Your task to perform on an android device: Set the phone to "Do not disturb". Image 0: 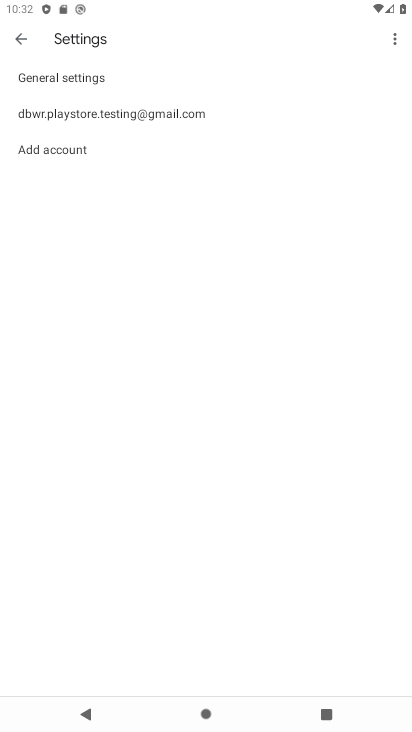
Step 0: press home button
Your task to perform on an android device: Set the phone to "Do not disturb". Image 1: 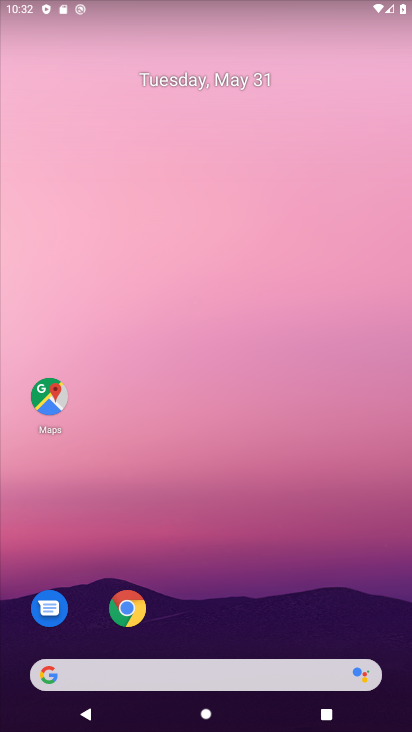
Step 1: drag from (297, 604) to (291, 90)
Your task to perform on an android device: Set the phone to "Do not disturb". Image 2: 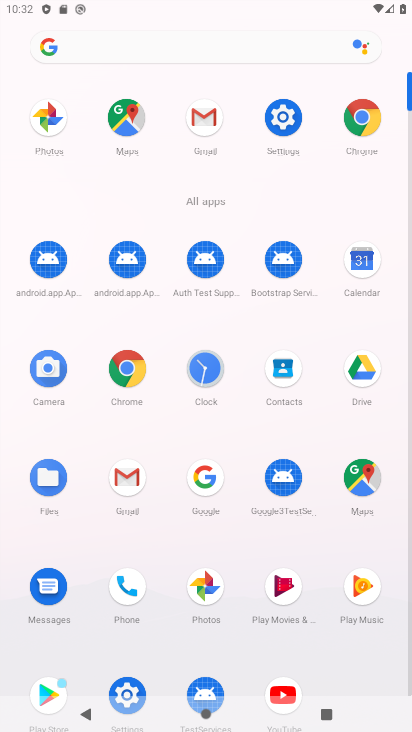
Step 2: click (123, 683)
Your task to perform on an android device: Set the phone to "Do not disturb". Image 3: 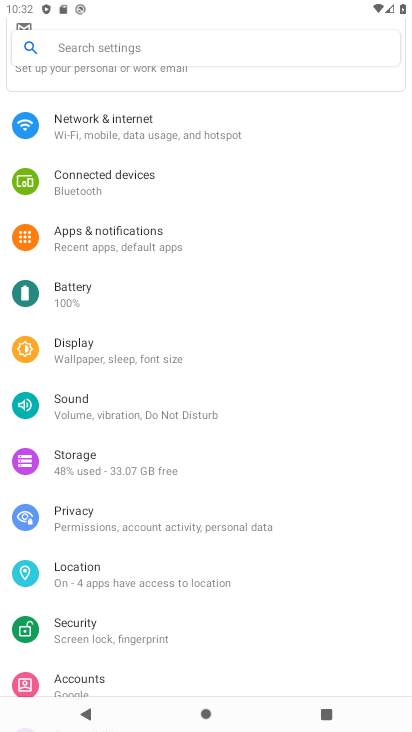
Step 3: click (183, 425)
Your task to perform on an android device: Set the phone to "Do not disturb". Image 4: 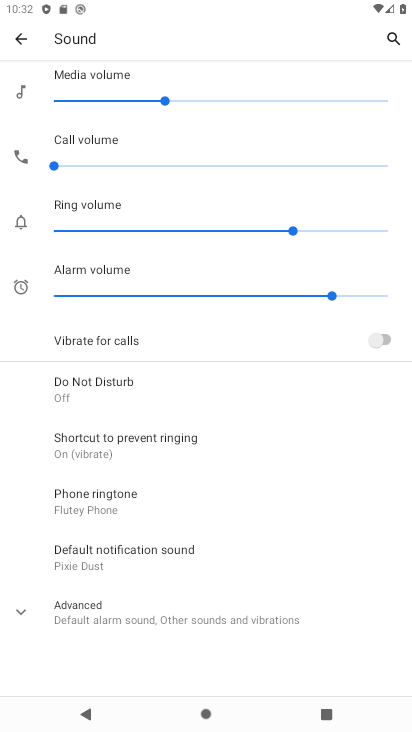
Step 4: click (218, 385)
Your task to perform on an android device: Set the phone to "Do not disturb". Image 5: 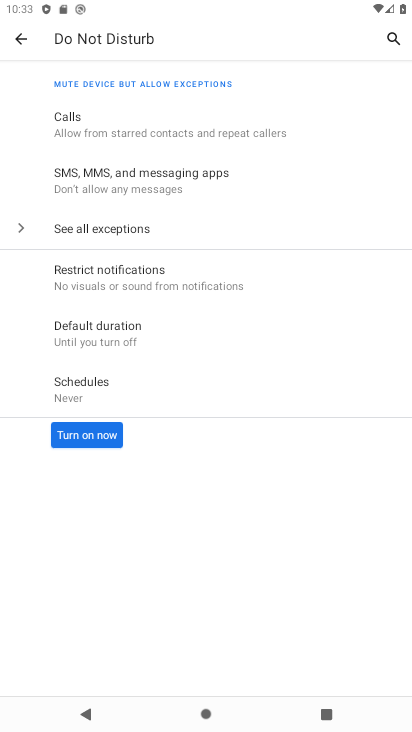
Step 5: click (106, 436)
Your task to perform on an android device: Set the phone to "Do not disturb". Image 6: 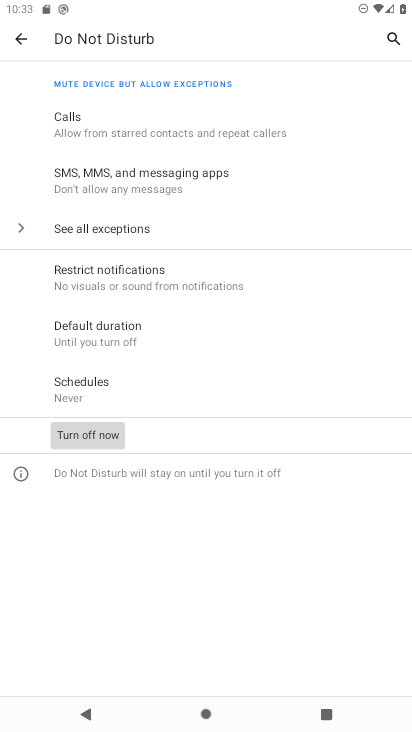
Step 6: task complete